Your task to perform on an android device: Look up "custom art" on Etsy Image 0: 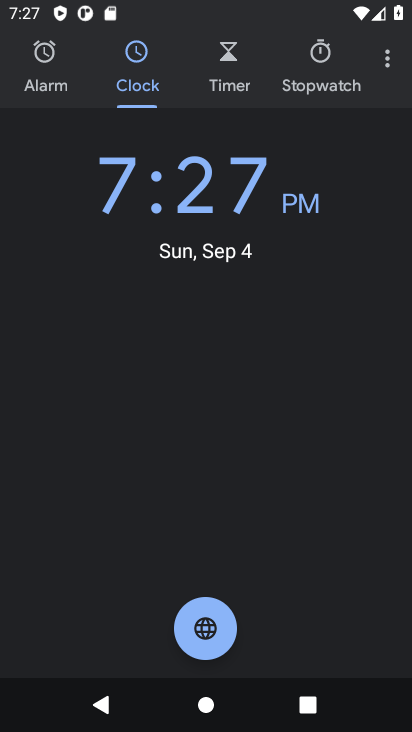
Step 0: press home button
Your task to perform on an android device: Look up "custom art" on Etsy Image 1: 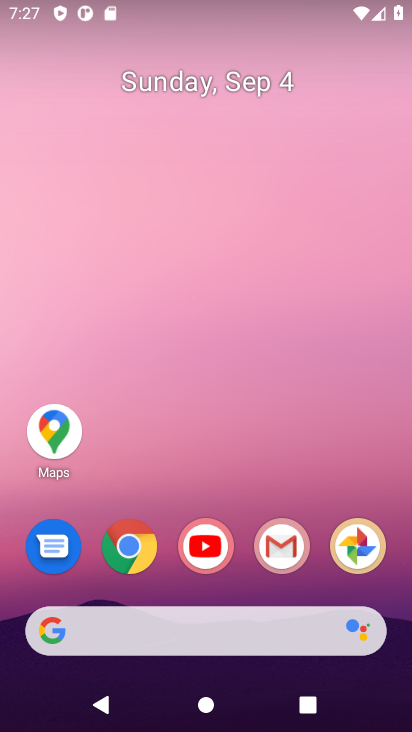
Step 1: click (127, 558)
Your task to perform on an android device: Look up "custom art" on Etsy Image 2: 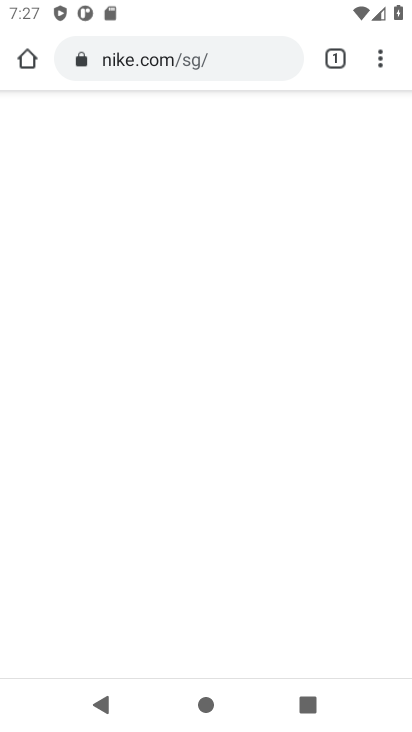
Step 2: click (176, 72)
Your task to perform on an android device: Look up "custom art" on Etsy Image 3: 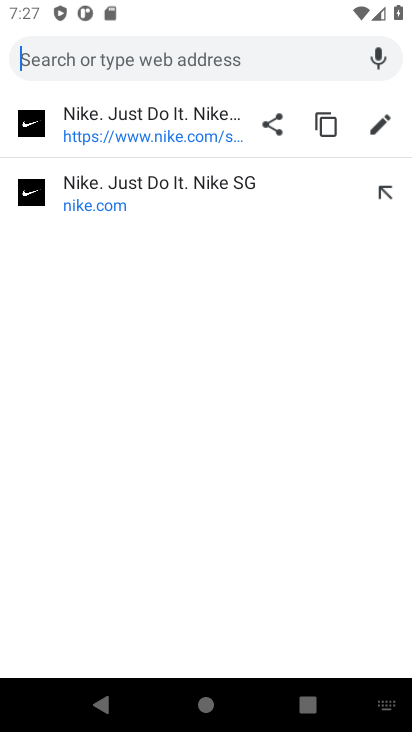
Step 3: type " Etsy"
Your task to perform on an android device: Look up "custom art" on Etsy Image 4: 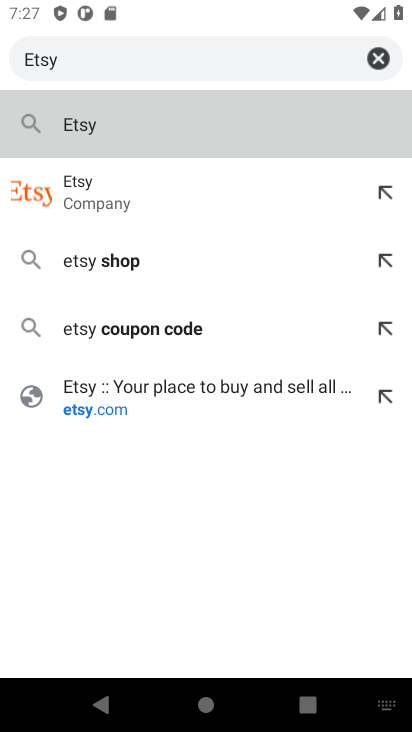
Step 4: click (72, 136)
Your task to perform on an android device: Look up "custom art" on Etsy Image 5: 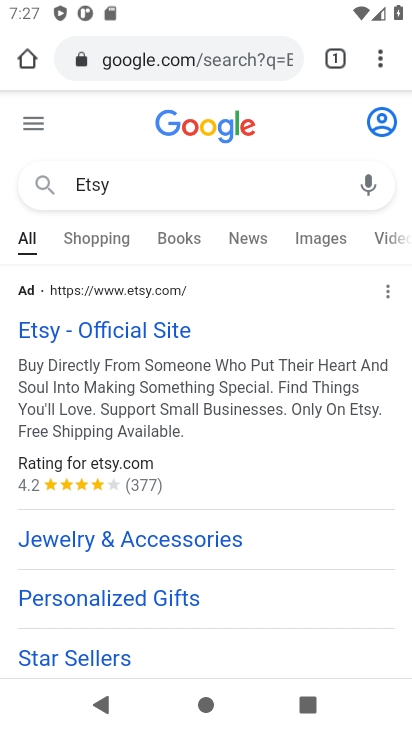
Step 5: click (99, 328)
Your task to perform on an android device: Look up "custom art" on Etsy Image 6: 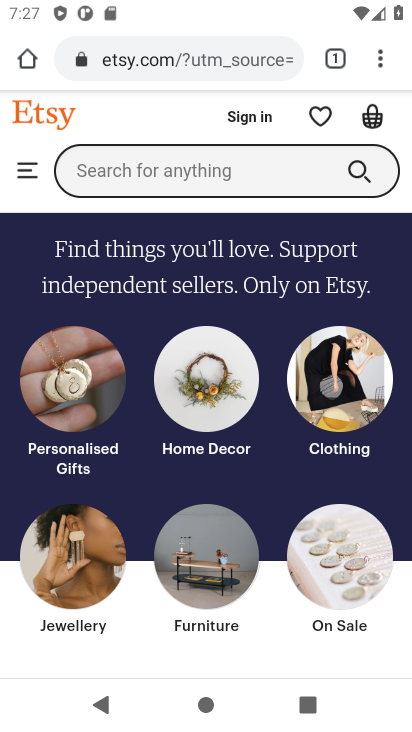
Step 6: click (126, 175)
Your task to perform on an android device: Look up "custom art" on Etsy Image 7: 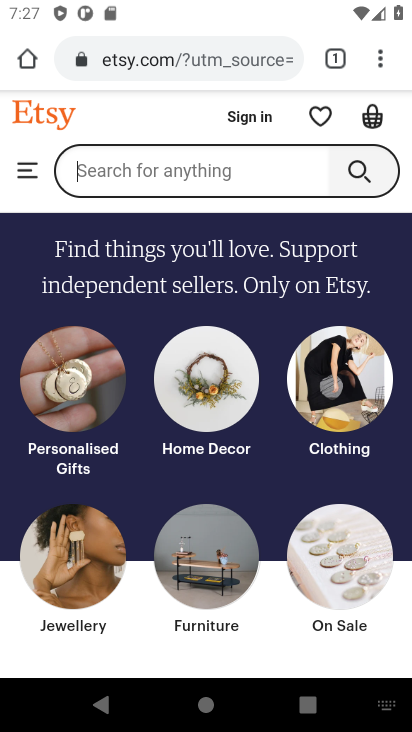
Step 7: type "custom art"
Your task to perform on an android device: Look up "custom art" on Etsy Image 8: 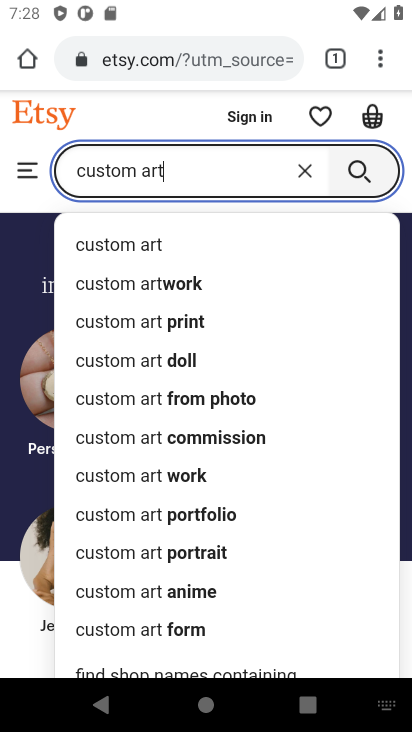
Step 8: click (141, 242)
Your task to perform on an android device: Look up "custom art" on Etsy Image 9: 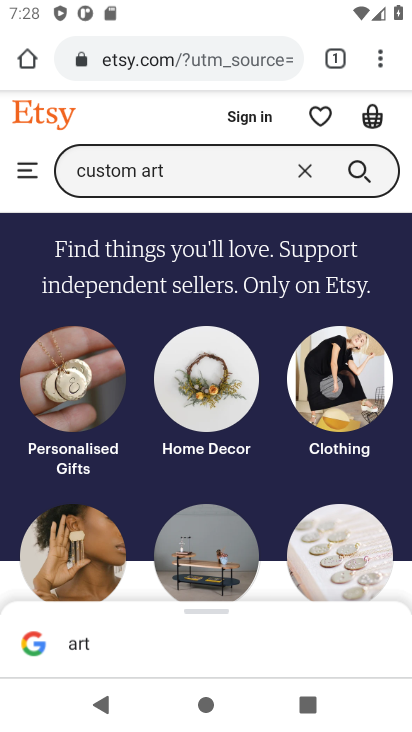
Step 9: click (351, 173)
Your task to perform on an android device: Look up "custom art" on Etsy Image 10: 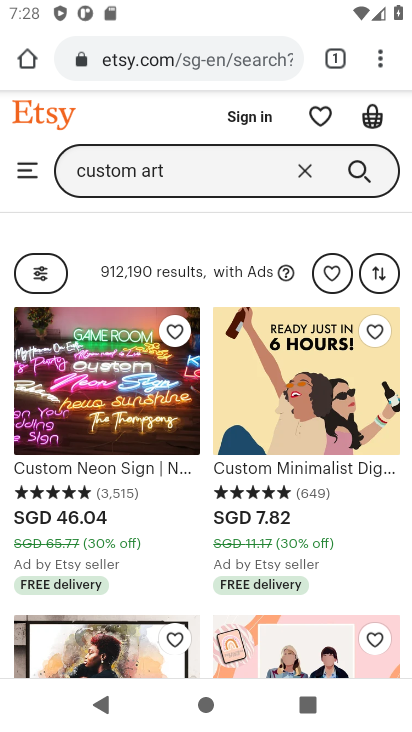
Step 10: task complete